Your task to perform on an android device: Open Chrome and go to settings Image 0: 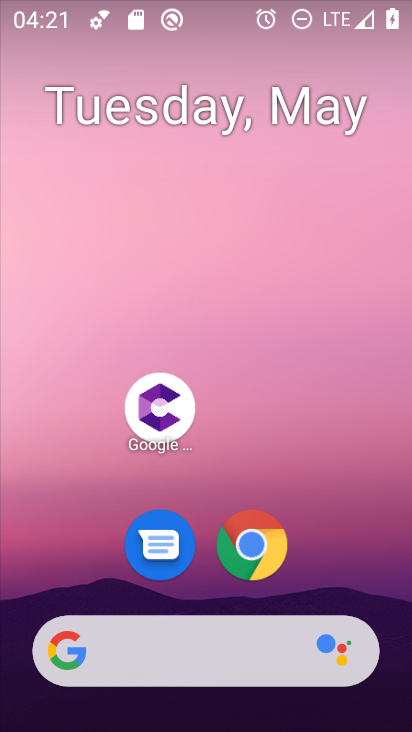
Step 0: drag from (351, 579) to (341, 174)
Your task to perform on an android device: Open Chrome and go to settings Image 1: 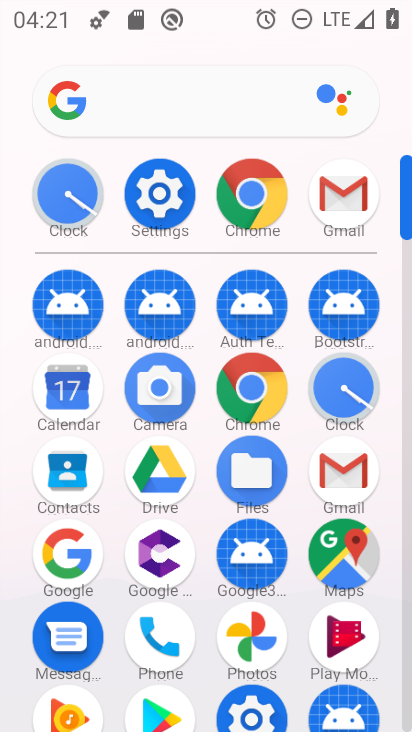
Step 1: click (259, 404)
Your task to perform on an android device: Open Chrome and go to settings Image 2: 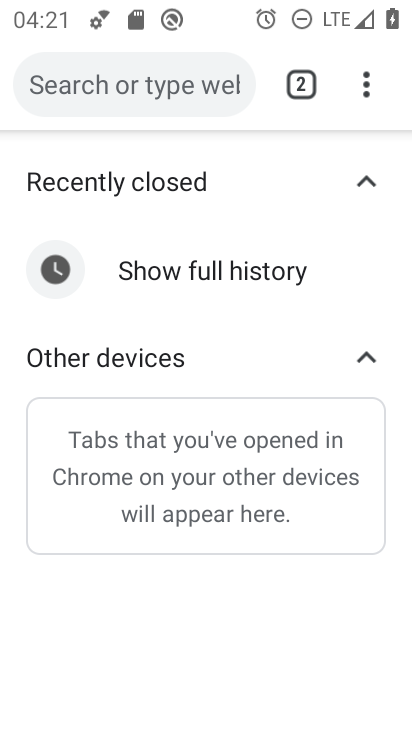
Step 2: click (368, 91)
Your task to perform on an android device: Open Chrome and go to settings Image 3: 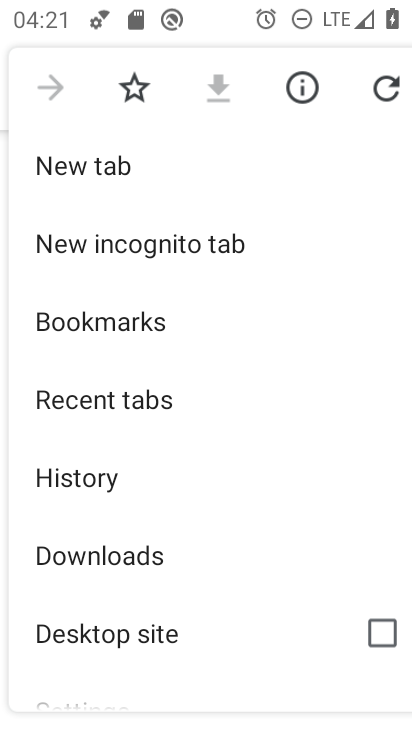
Step 3: drag from (318, 556) to (331, 460)
Your task to perform on an android device: Open Chrome and go to settings Image 4: 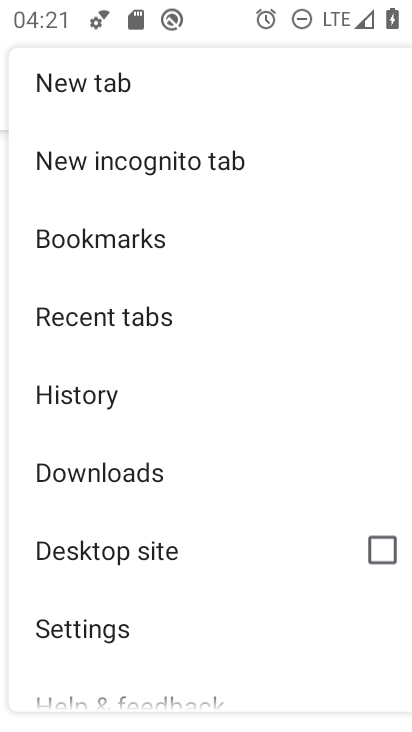
Step 4: drag from (311, 581) to (305, 473)
Your task to perform on an android device: Open Chrome and go to settings Image 5: 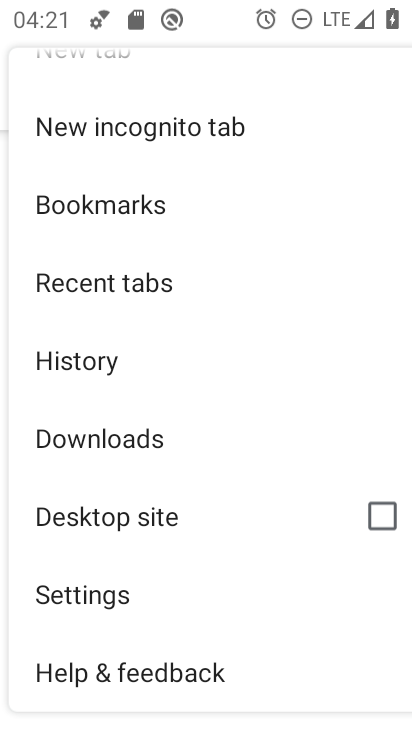
Step 5: drag from (294, 629) to (295, 477)
Your task to perform on an android device: Open Chrome and go to settings Image 6: 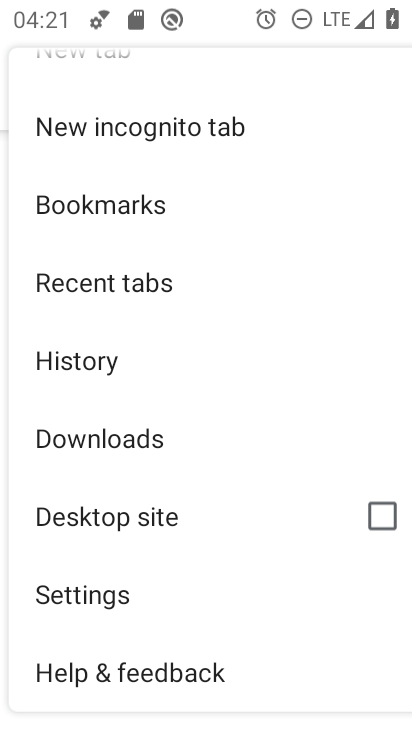
Step 6: drag from (303, 298) to (299, 384)
Your task to perform on an android device: Open Chrome and go to settings Image 7: 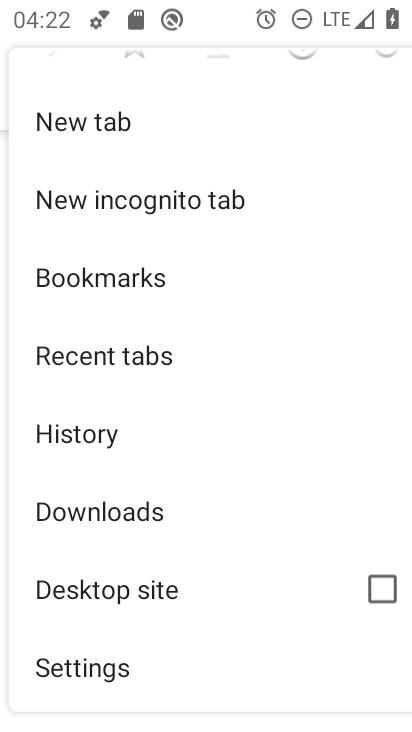
Step 7: drag from (314, 253) to (319, 377)
Your task to perform on an android device: Open Chrome and go to settings Image 8: 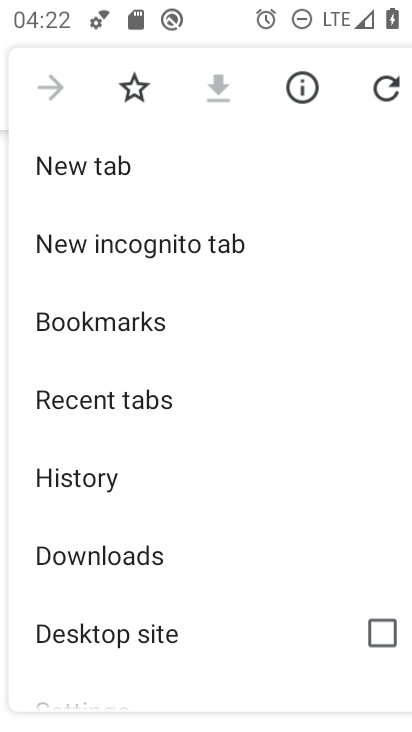
Step 8: drag from (303, 537) to (309, 409)
Your task to perform on an android device: Open Chrome and go to settings Image 9: 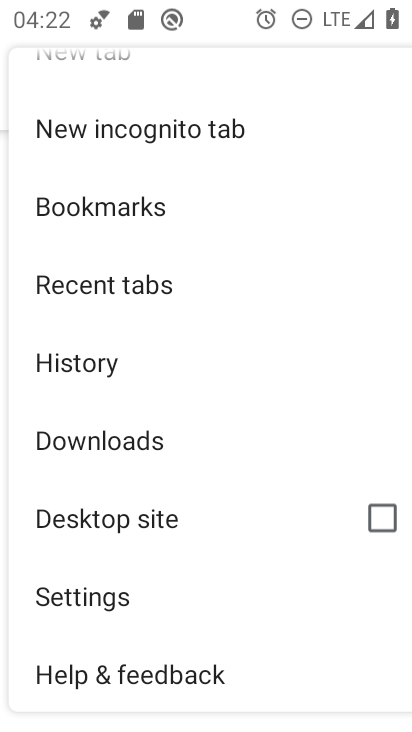
Step 9: click (162, 604)
Your task to perform on an android device: Open Chrome and go to settings Image 10: 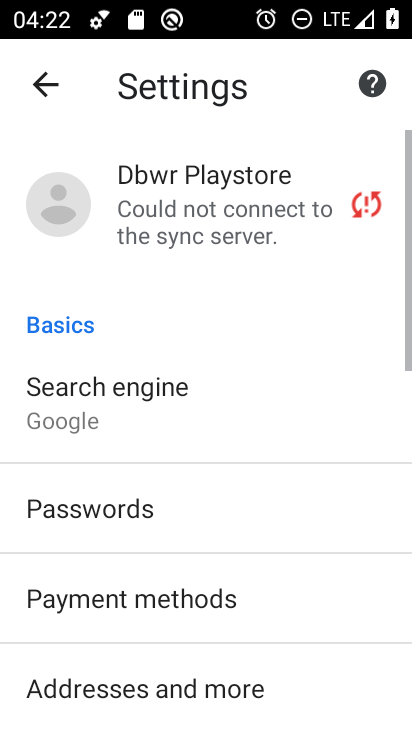
Step 10: task complete